Your task to perform on an android device: Go to accessibility settings Image 0: 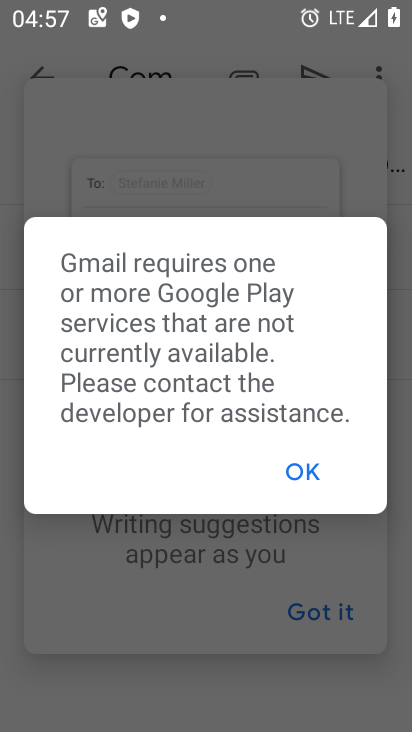
Step 0: press home button
Your task to perform on an android device: Go to accessibility settings Image 1: 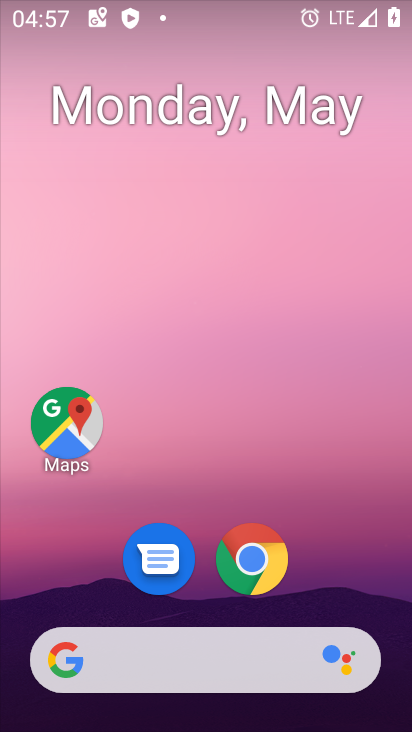
Step 1: drag from (259, 622) to (343, 20)
Your task to perform on an android device: Go to accessibility settings Image 2: 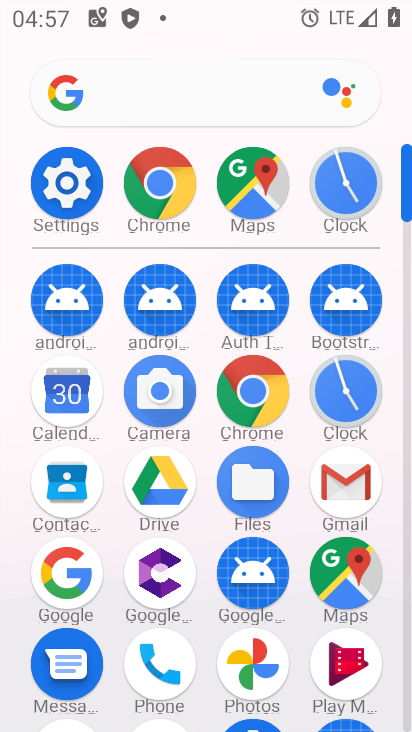
Step 2: click (78, 200)
Your task to perform on an android device: Go to accessibility settings Image 3: 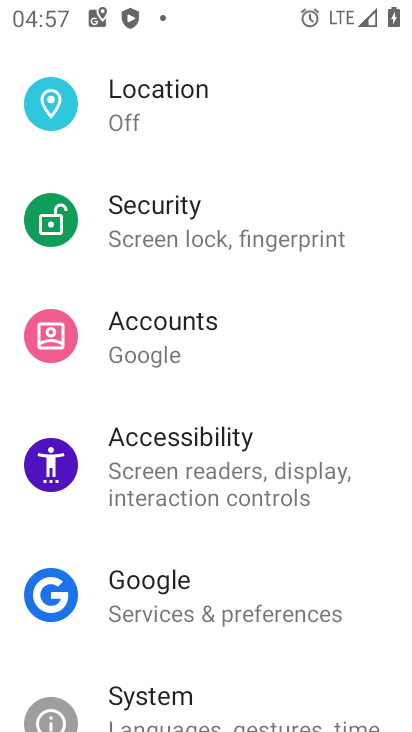
Step 3: click (261, 487)
Your task to perform on an android device: Go to accessibility settings Image 4: 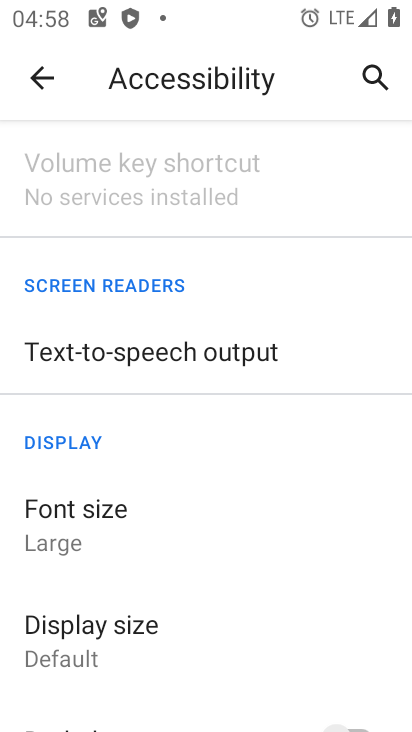
Step 4: task complete